Your task to perform on an android device: Do I have any events today? Image 0: 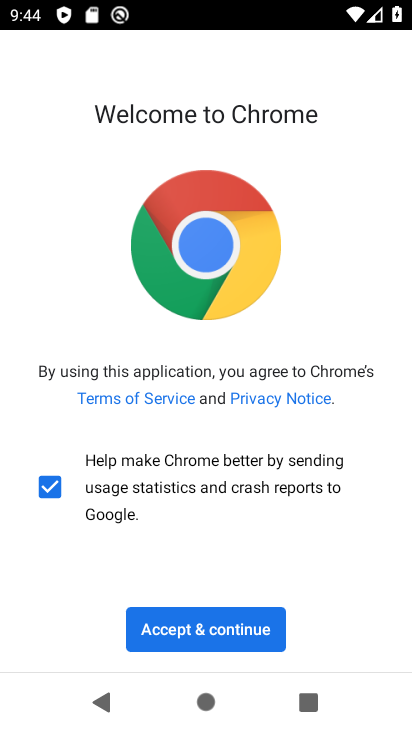
Step 0: press back button
Your task to perform on an android device: Do I have any events today? Image 1: 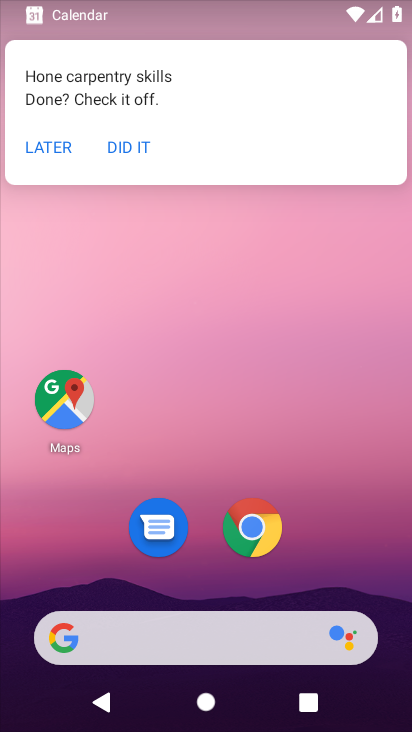
Step 1: click (40, 147)
Your task to perform on an android device: Do I have any events today? Image 2: 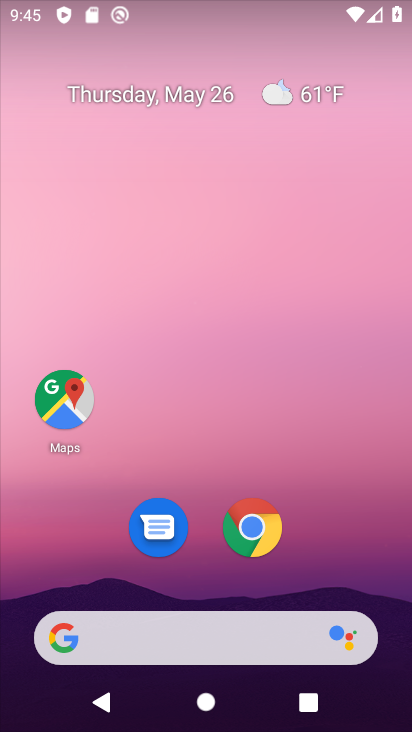
Step 2: click (170, 644)
Your task to perform on an android device: Do I have any events today? Image 3: 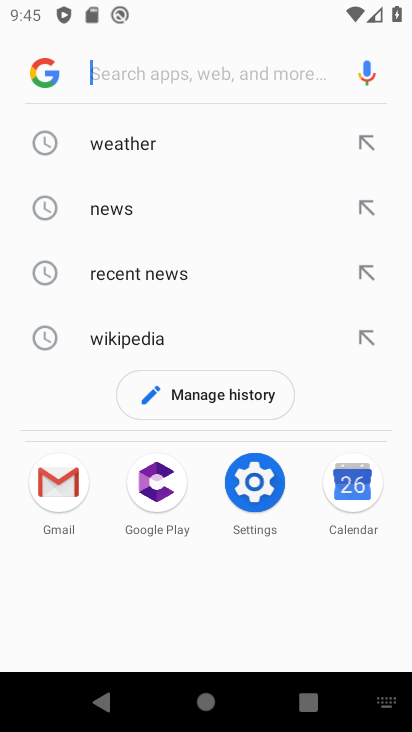
Step 3: press back button
Your task to perform on an android device: Do I have any events today? Image 4: 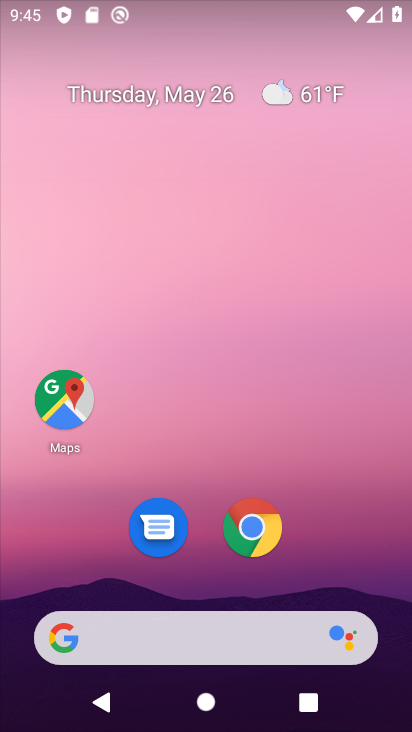
Step 4: drag from (254, 403) to (313, 5)
Your task to perform on an android device: Do I have any events today? Image 5: 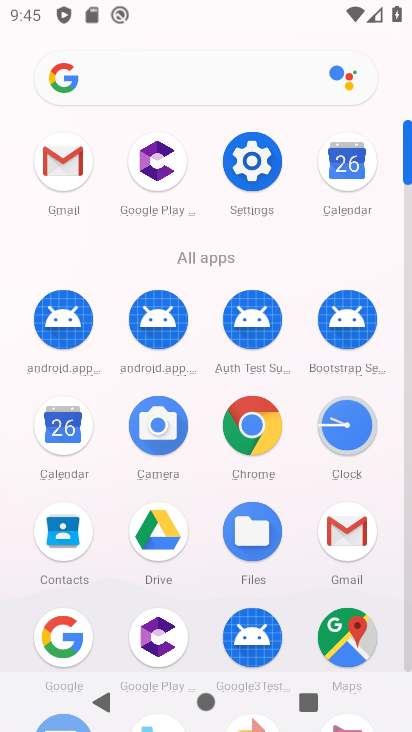
Step 5: click (54, 444)
Your task to perform on an android device: Do I have any events today? Image 6: 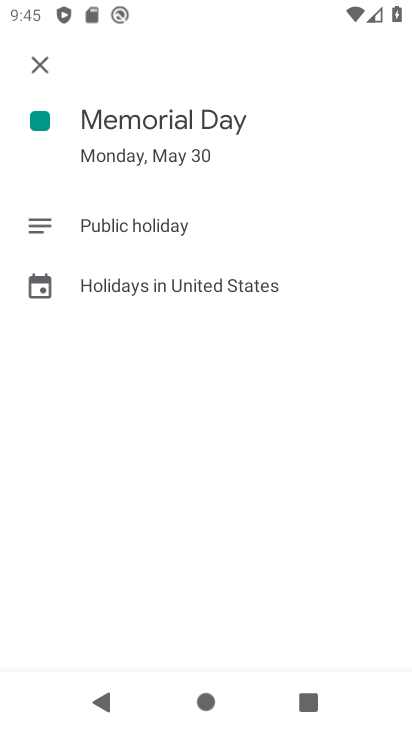
Step 6: click (38, 58)
Your task to perform on an android device: Do I have any events today? Image 7: 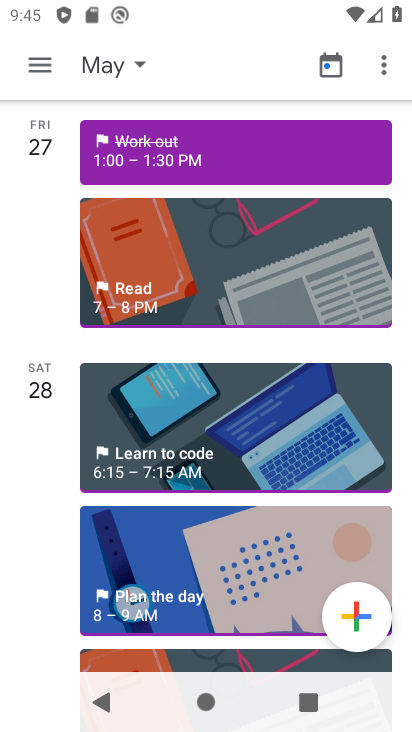
Step 7: click (147, 272)
Your task to perform on an android device: Do I have any events today? Image 8: 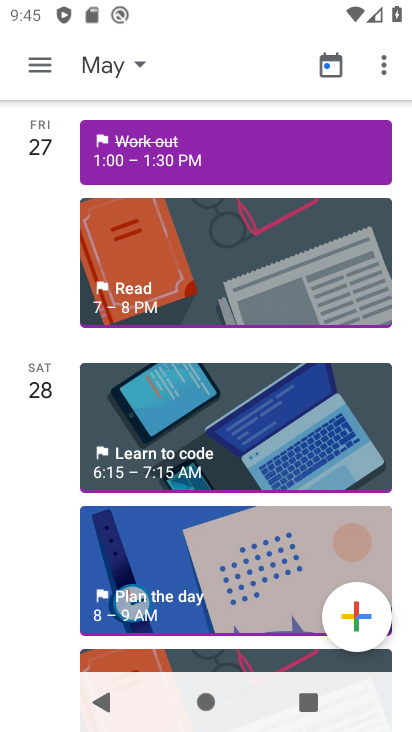
Step 8: drag from (219, 250) to (183, 528)
Your task to perform on an android device: Do I have any events today? Image 9: 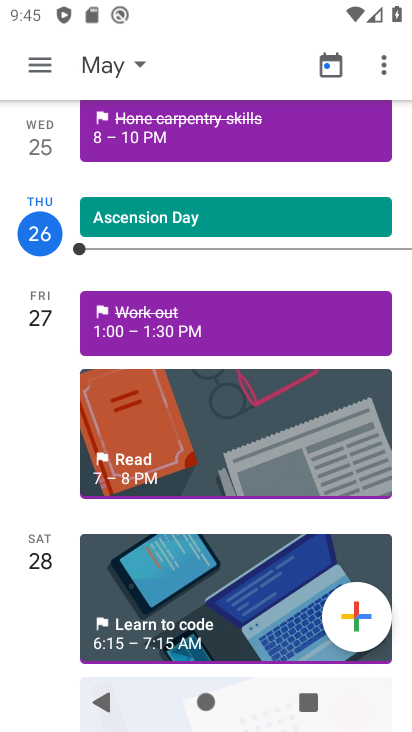
Step 9: click (206, 309)
Your task to perform on an android device: Do I have any events today? Image 10: 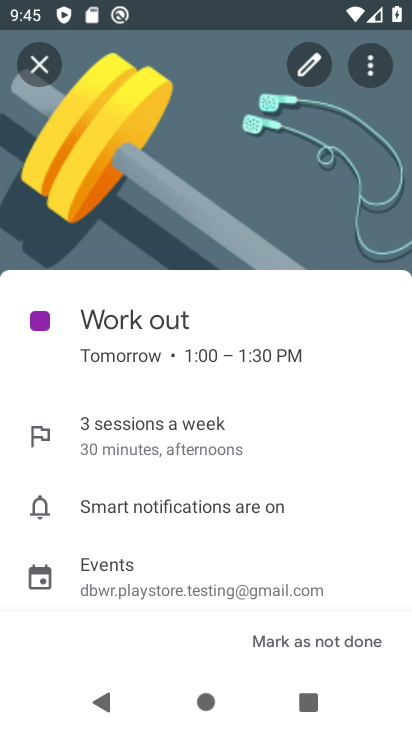
Step 10: task complete